Your task to perform on an android device: Open eBay Image 0: 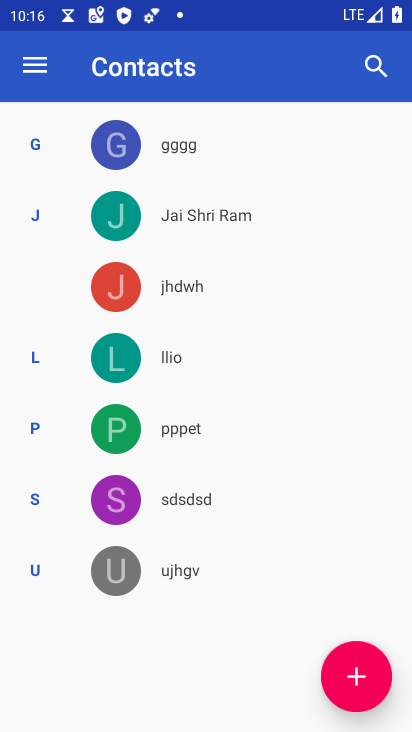
Step 0: press home button
Your task to perform on an android device: Open eBay Image 1: 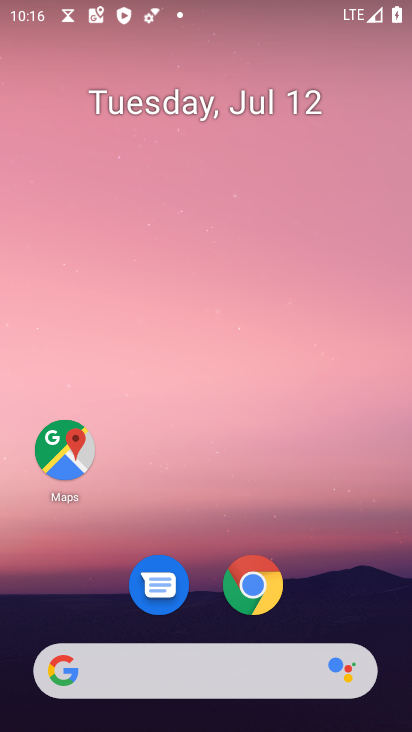
Step 1: click (255, 592)
Your task to perform on an android device: Open eBay Image 2: 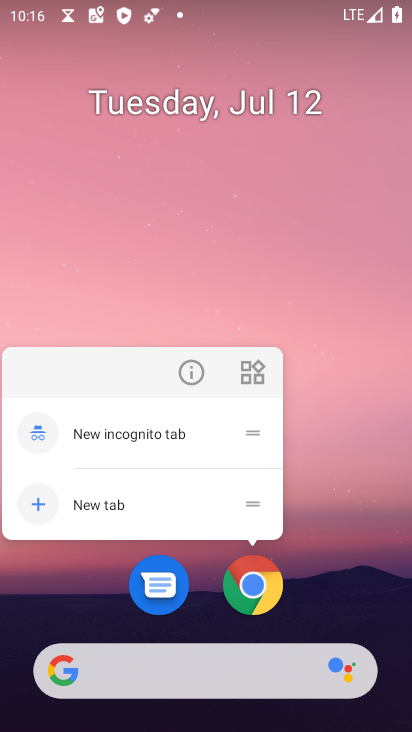
Step 2: click (249, 585)
Your task to perform on an android device: Open eBay Image 3: 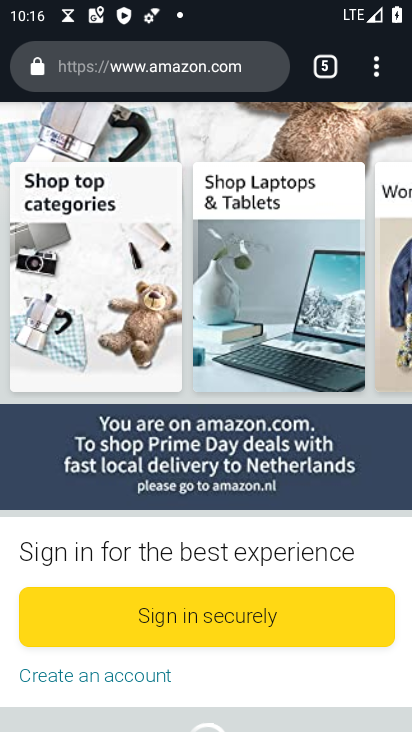
Step 3: drag from (378, 69) to (263, 135)
Your task to perform on an android device: Open eBay Image 4: 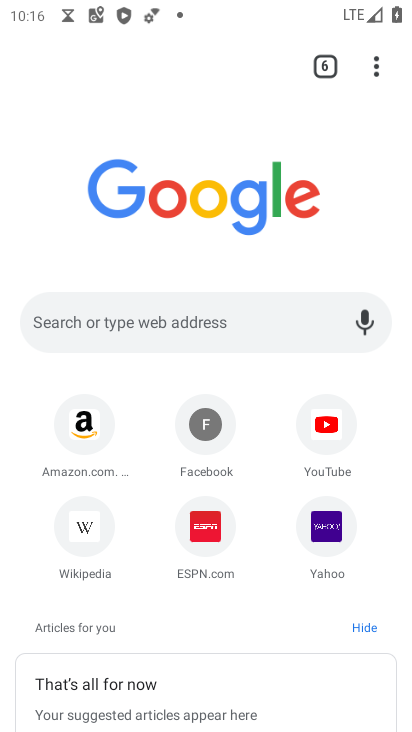
Step 4: click (157, 304)
Your task to perform on an android device: Open eBay Image 5: 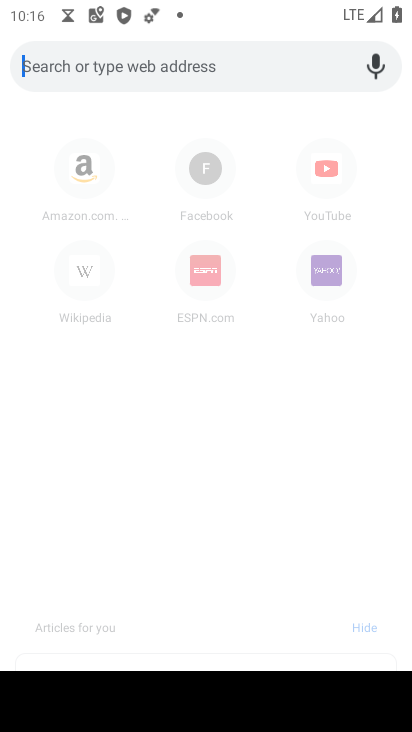
Step 5: type "ebay"
Your task to perform on an android device: Open eBay Image 6: 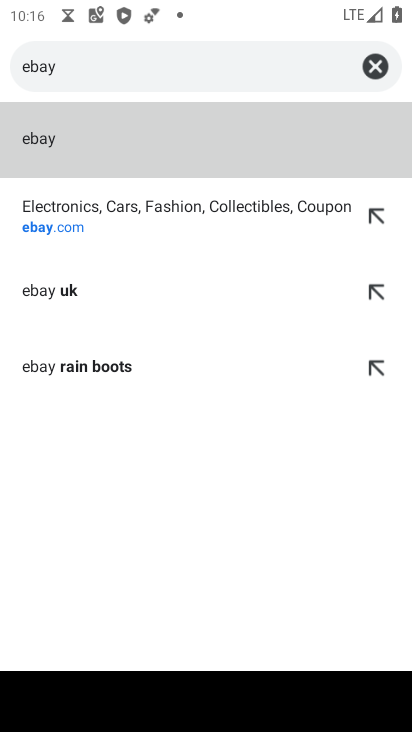
Step 6: click (155, 140)
Your task to perform on an android device: Open eBay Image 7: 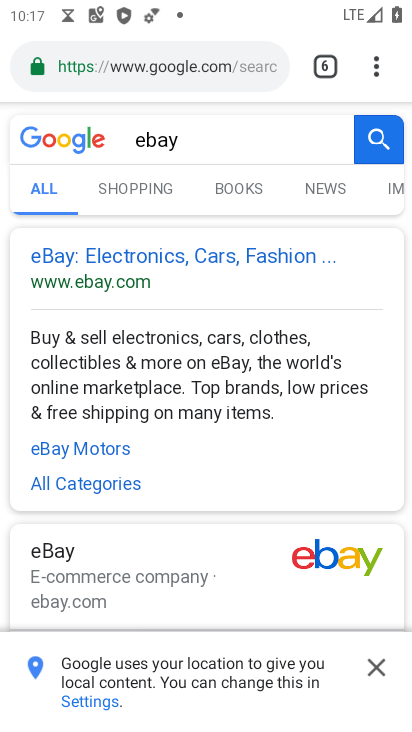
Step 7: click (192, 256)
Your task to perform on an android device: Open eBay Image 8: 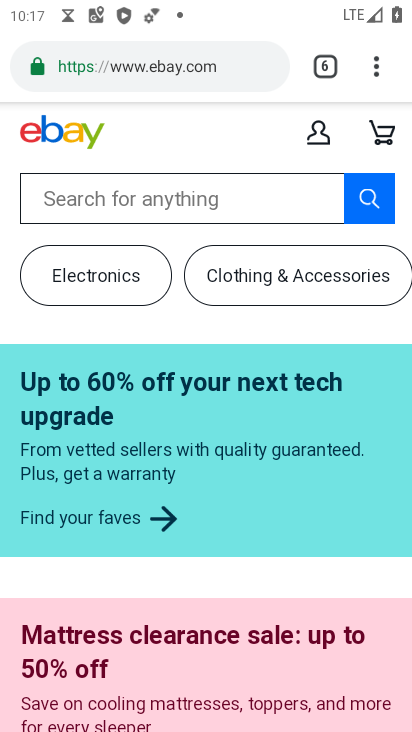
Step 8: task complete